Your task to perform on an android device: turn on bluetooth scan Image 0: 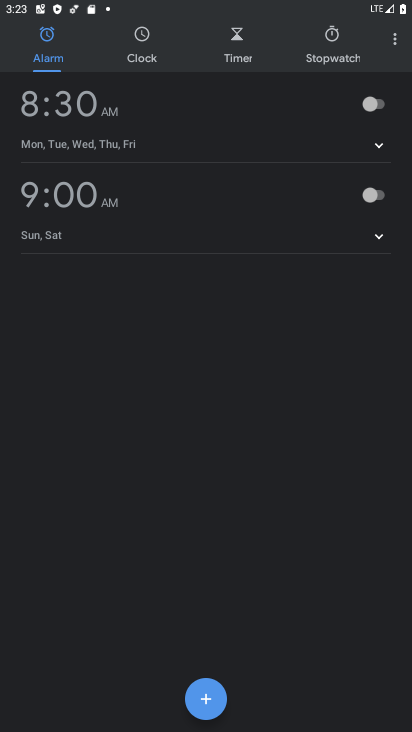
Step 0: press home button
Your task to perform on an android device: turn on bluetooth scan Image 1: 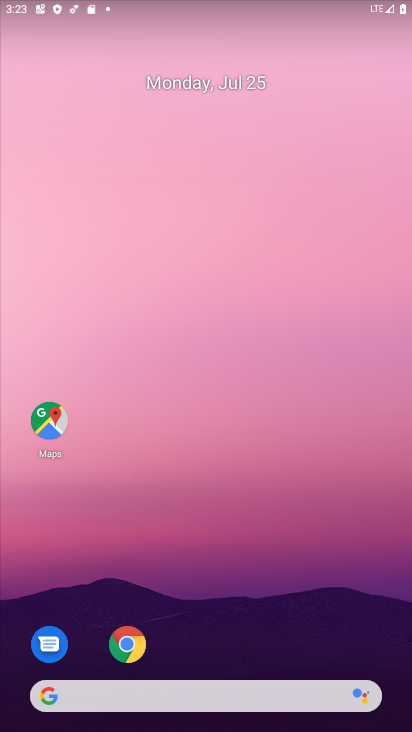
Step 1: drag from (329, 613) to (243, 151)
Your task to perform on an android device: turn on bluetooth scan Image 2: 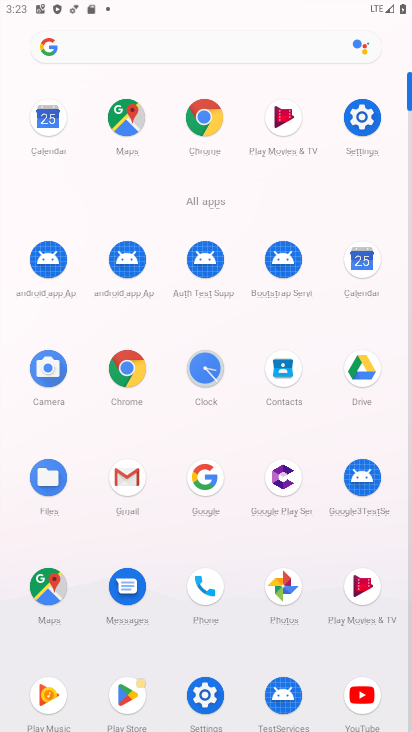
Step 2: click (354, 113)
Your task to perform on an android device: turn on bluetooth scan Image 3: 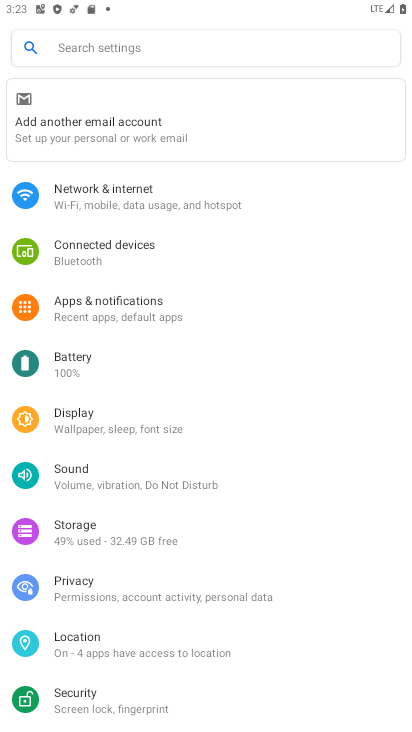
Step 3: click (214, 647)
Your task to perform on an android device: turn on bluetooth scan Image 4: 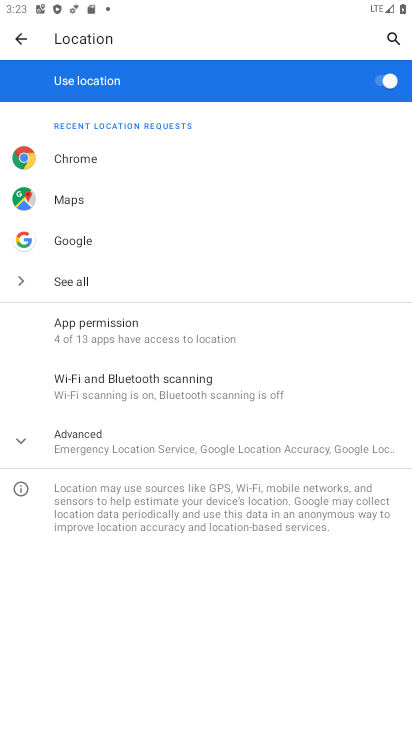
Step 4: click (266, 392)
Your task to perform on an android device: turn on bluetooth scan Image 5: 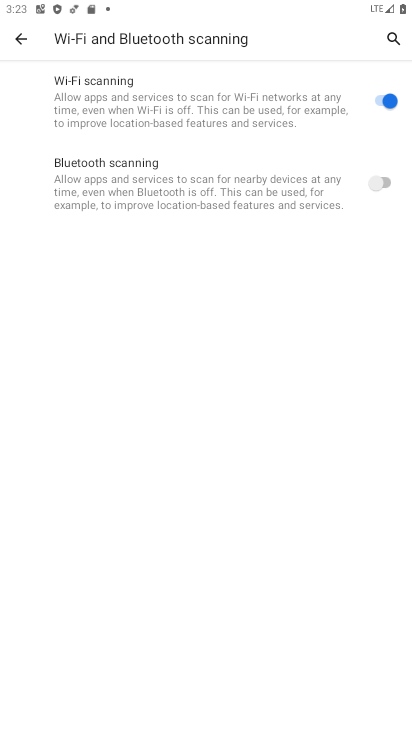
Step 5: click (390, 180)
Your task to perform on an android device: turn on bluetooth scan Image 6: 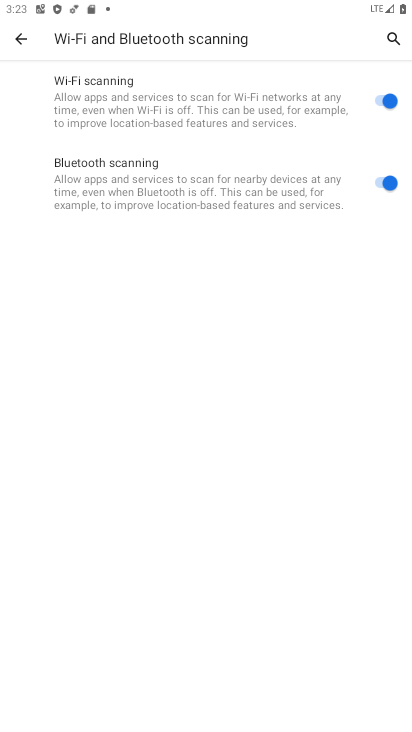
Step 6: task complete